Your task to perform on an android device: Search for pizza restaurants on Maps Image 0: 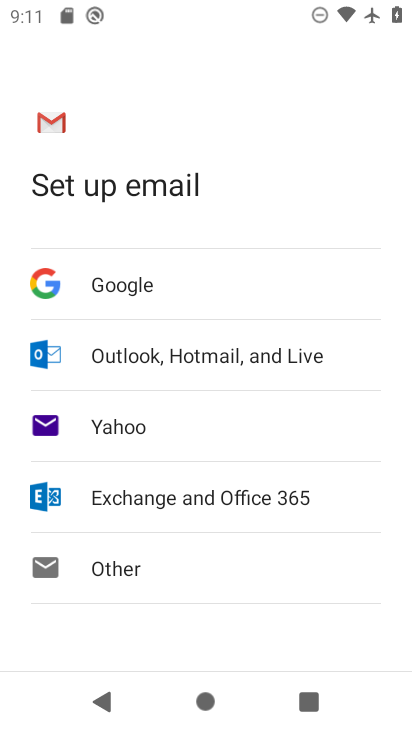
Step 0: press home button
Your task to perform on an android device: Search for pizza restaurants on Maps Image 1: 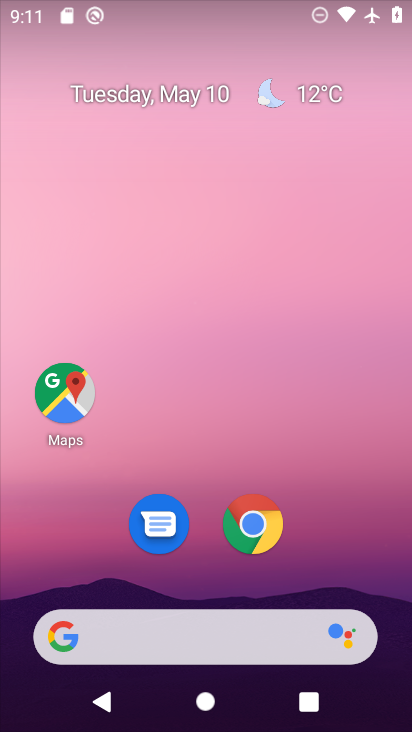
Step 1: click (61, 391)
Your task to perform on an android device: Search for pizza restaurants on Maps Image 2: 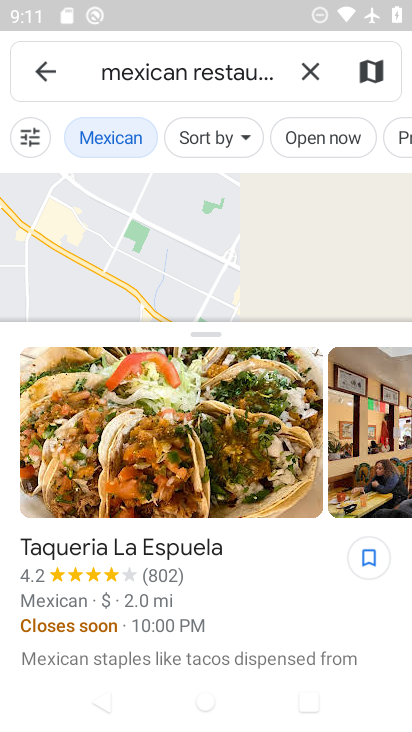
Step 2: click (305, 66)
Your task to perform on an android device: Search for pizza restaurants on Maps Image 3: 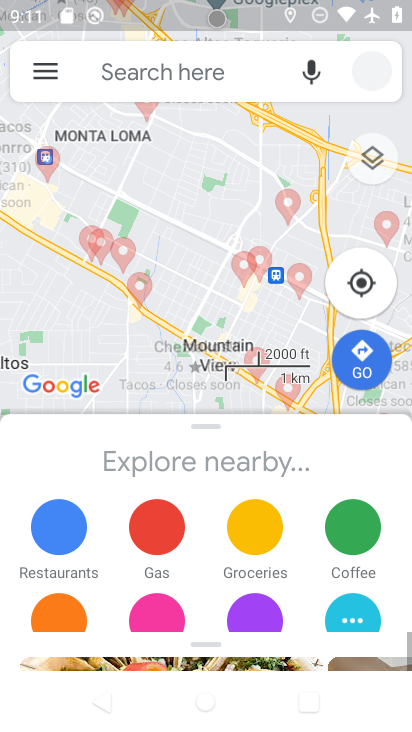
Step 3: click (198, 59)
Your task to perform on an android device: Search for pizza restaurants on Maps Image 4: 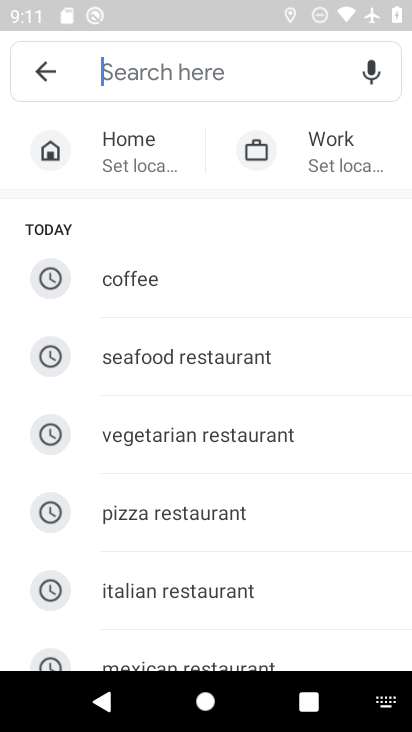
Step 4: click (185, 509)
Your task to perform on an android device: Search for pizza restaurants on Maps Image 5: 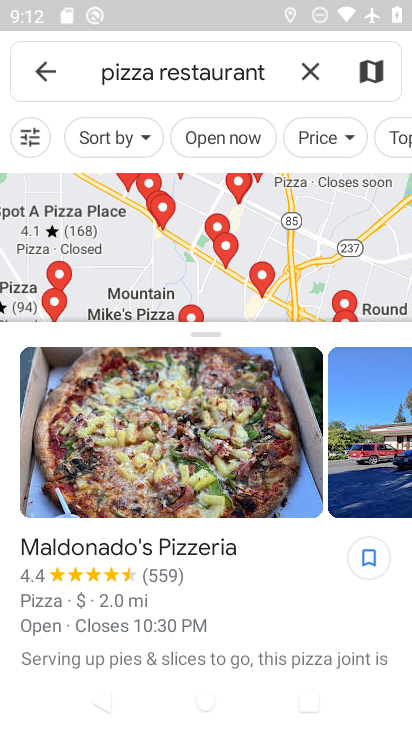
Step 5: task complete